Your task to perform on an android device: Do I have any events tomorrow? Image 0: 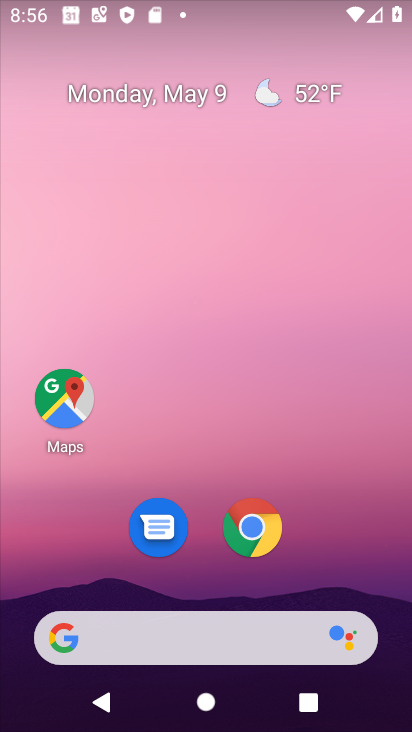
Step 0: drag from (208, 561) to (171, 14)
Your task to perform on an android device: Do I have any events tomorrow? Image 1: 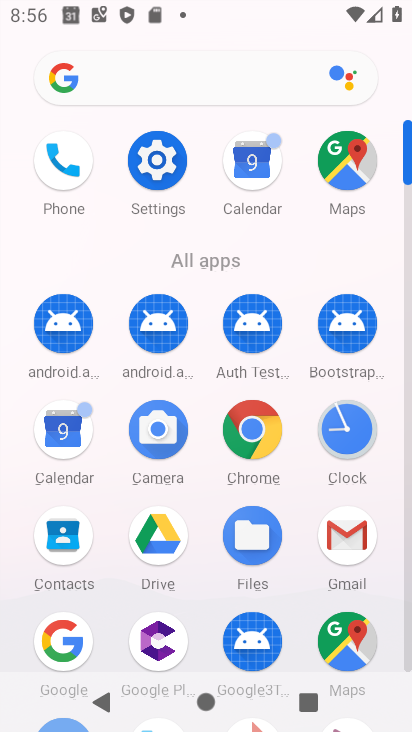
Step 1: click (65, 431)
Your task to perform on an android device: Do I have any events tomorrow? Image 2: 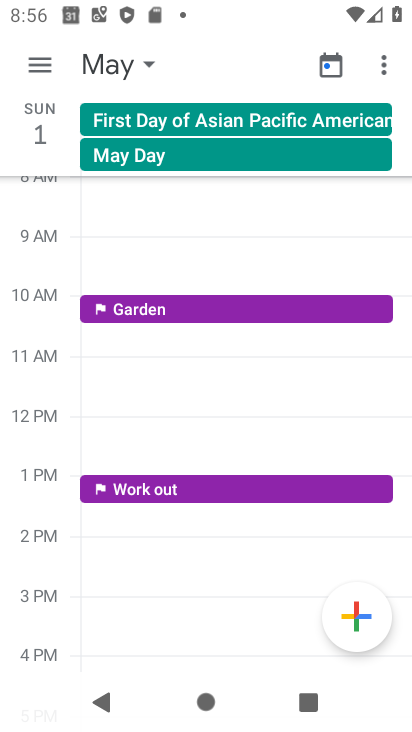
Step 2: click (138, 67)
Your task to perform on an android device: Do I have any events tomorrow? Image 3: 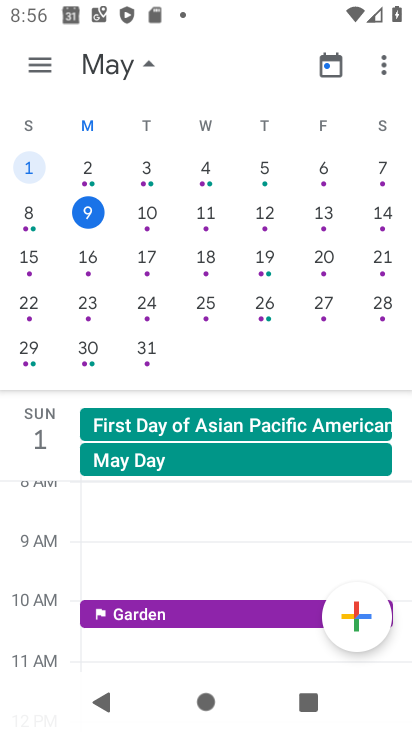
Step 3: click (143, 213)
Your task to perform on an android device: Do I have any events tomorrow? Image 4: 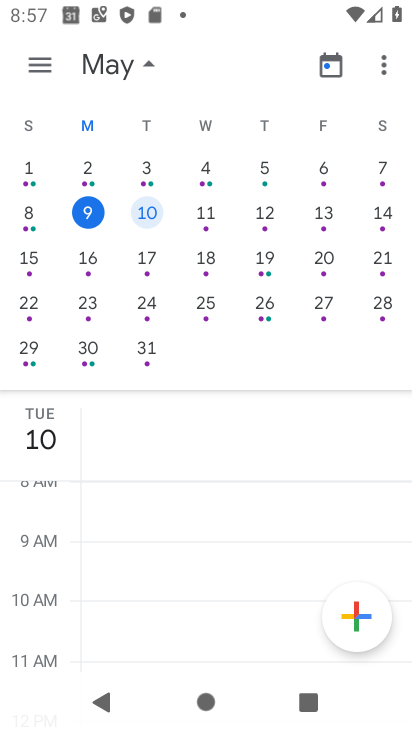
Step 4: task complete